Your task to perform on an android device: Go to calendar. Show me events next week Image 0: 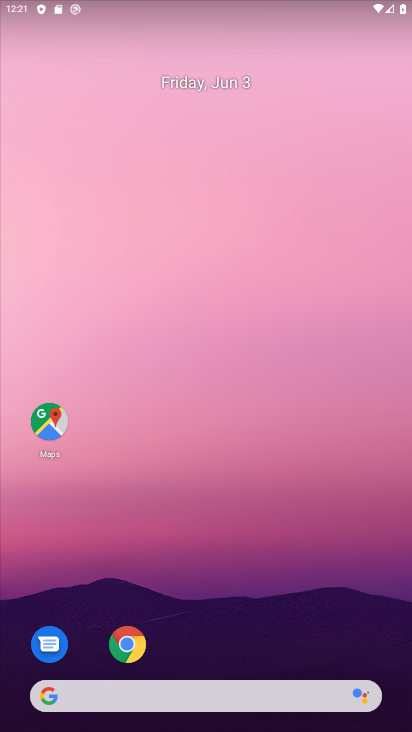
Step 0: click (128, 641)
Your task to perform on an android device: Go to calendar. Show me events next week Image 1: 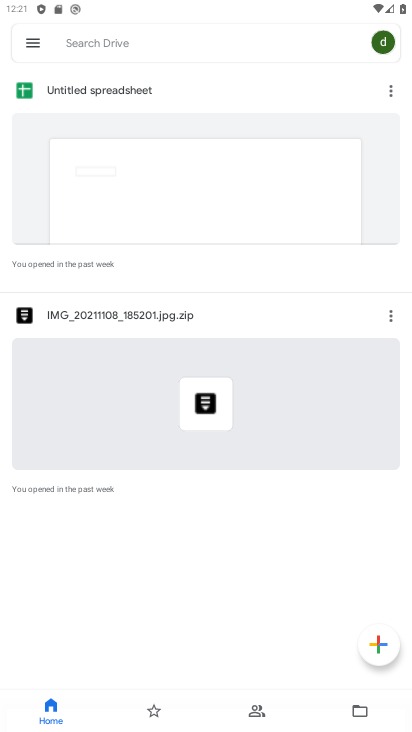
Step 1: press home button
Your task to perform on an android device: Go to calendar. Show me events next week Image 2: 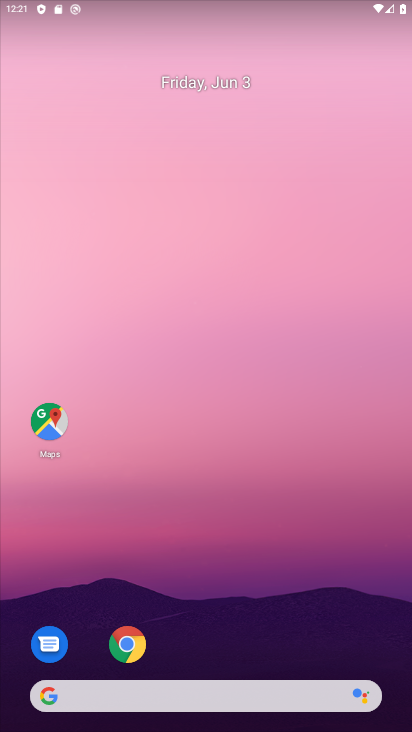
Step 2: drag from (209, 729) to (234, 12)
Your task to perform on an android device: Go to calendar. Show me events next week Image 3: 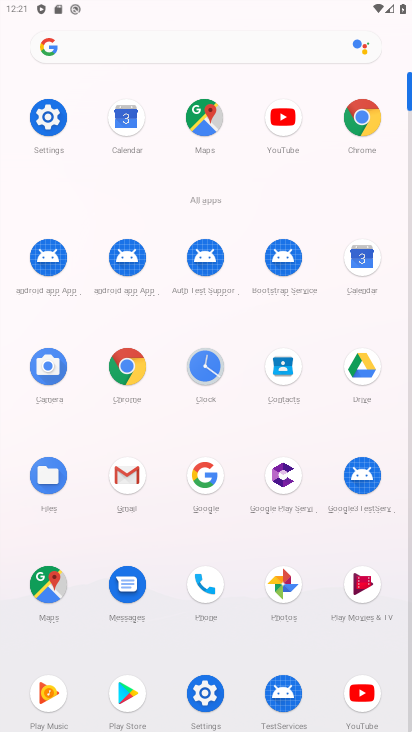
Step 3: click (358, 255)
Your task to perform on an android device: Go to calendar. Show me events next week Image 4: 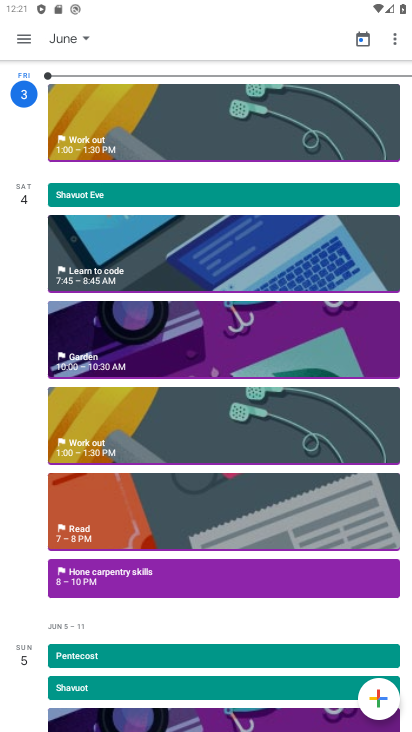
Step 4: click (82, 38)
Your task to perform on an android device: Go to calendar. Show me events next week Image 5: 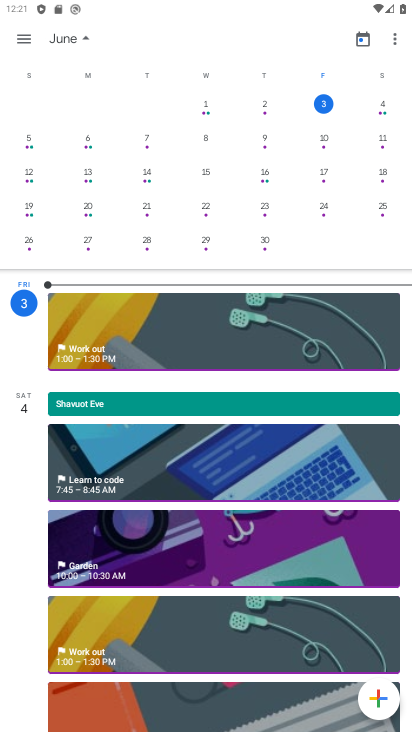
Step 5: click (84, 139)
Your task to perform on an android device: Go to calendar. Show me events next week Image 6: 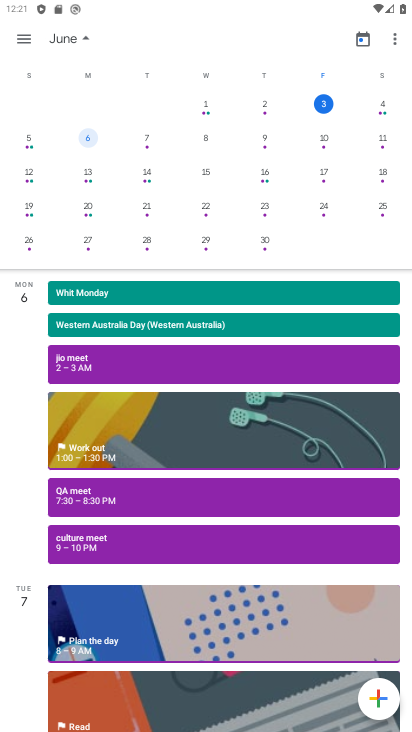
Step 6: click (26, 38)
Your task to perform on an android device: Go to calendar. Show me events next week Image 7: 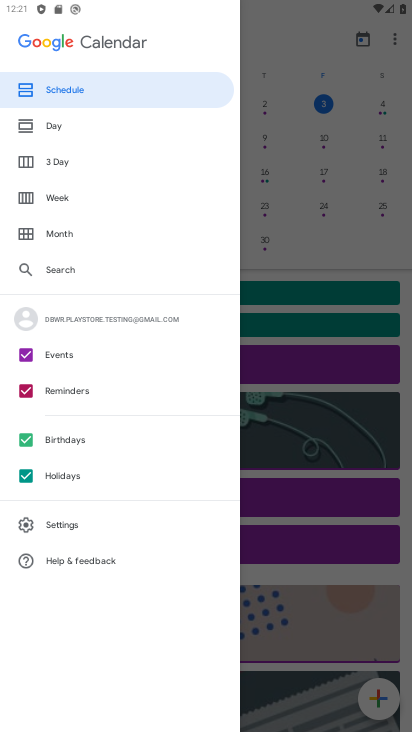
Step 7: click (61, 193)
Your task to perform on an android device: Go to calendar. Show me events next week Image 8: 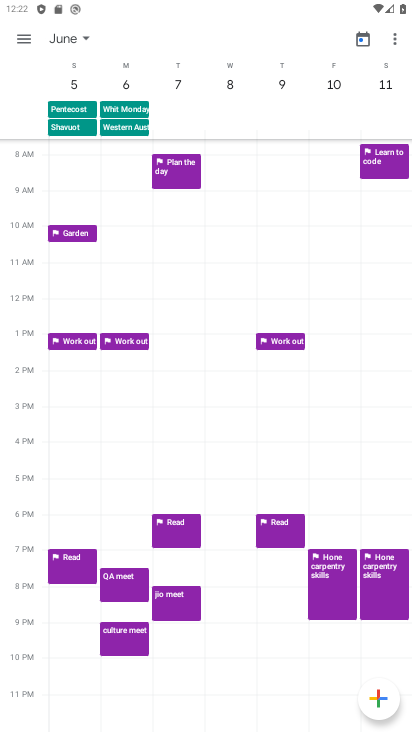
Step 8: task complete